Your task to perform on an android device: find snoozed emails in the gmail app Image 0: 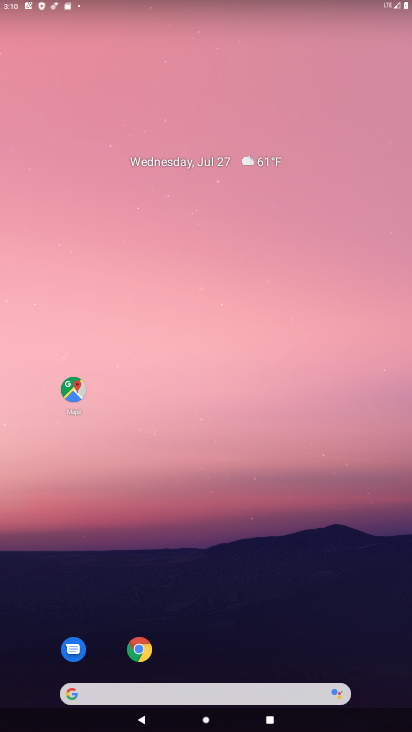
Step 0: drag from (180, 500) to (168, 6)
Your task to perform on an android device: find snoozed emails in the gmail app Image 1: 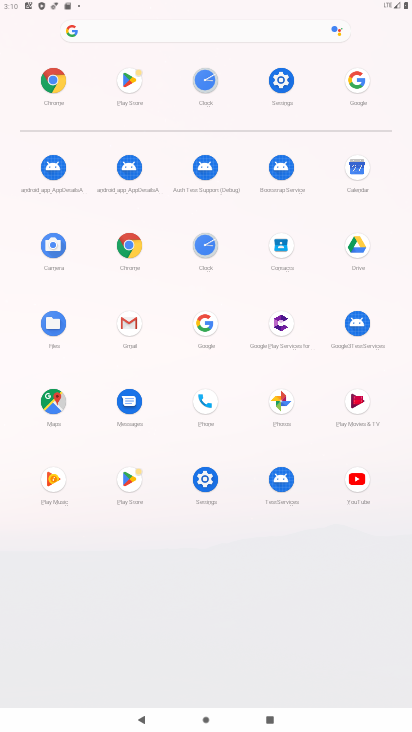
Step 1: click (132, 322)
Your task to perform on an android device: find snoozed emails in the gmail app Image 2: 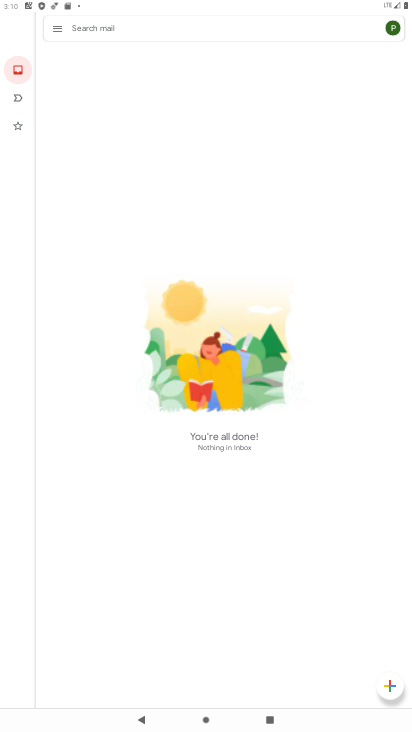
Step 2: click (53, 25)
Your task to perform on an android device: find snoozed emails in the gmail app Image 3: 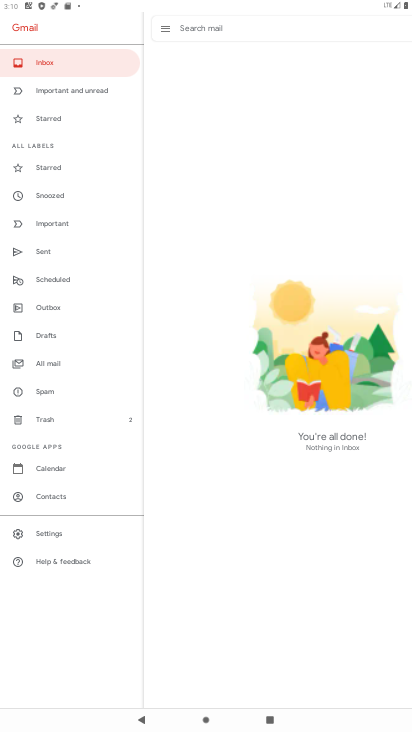
Step 3: click (52, 197)
Your task to perform on an android device: find snoozed emails in the gmail app Image 4: 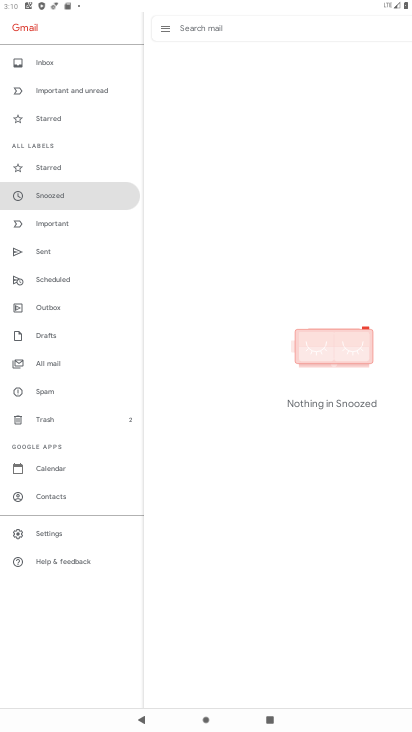
Step 4: task complete